Your task to perform on an android device: open the mobile data screen to see how much data has been used Image 0: 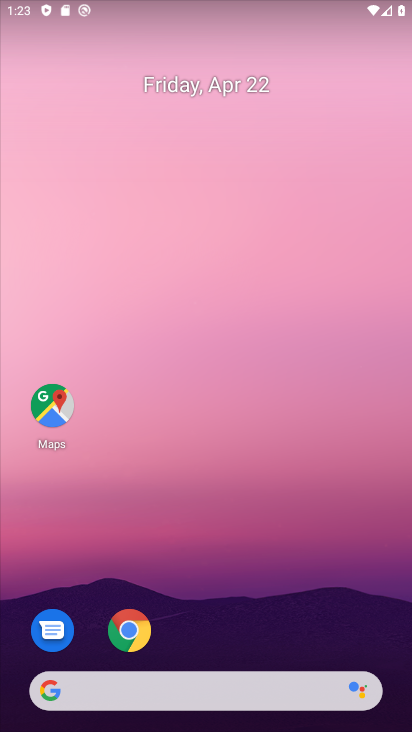
Step 0: drag from (226, 314) to (231, 104)
Your task to perform on an android device: open the mobile data screen to see how much data has been used Image 1: 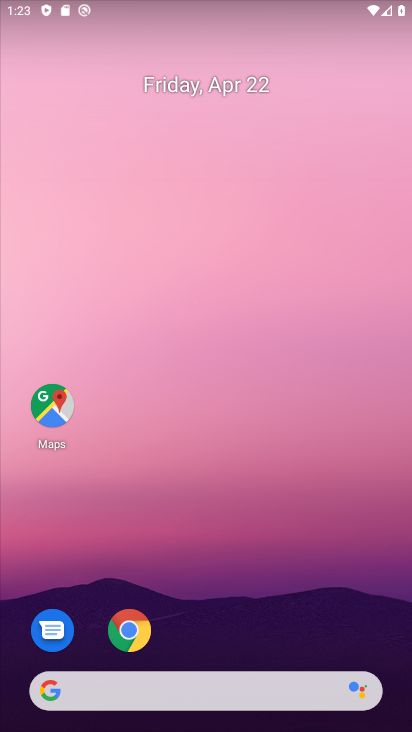
Step 1: drag from (223, 589) to (231, 179)
Your task to perform on an android device: open the mobile data screen to see how much data has been used Image 2: 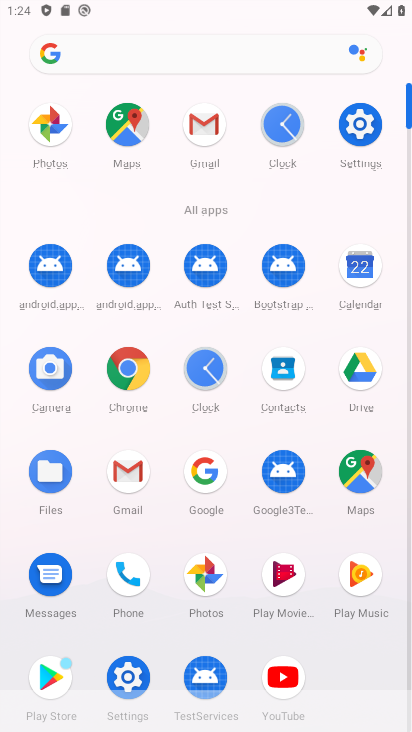
Step 2: click (361, 131)
Your task to perform on an android device: open the mobile data screen to see how much data has been used Image 3: 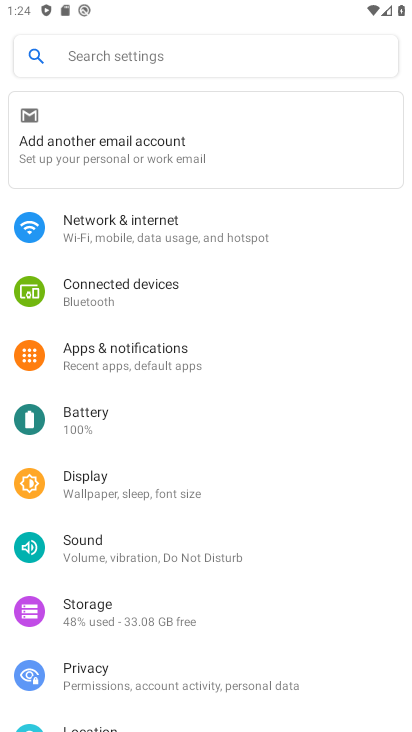
Step 3: click (160, 230)
Your task to perform on an android device: open the mobile data screen to see how much data has been used Image 4: 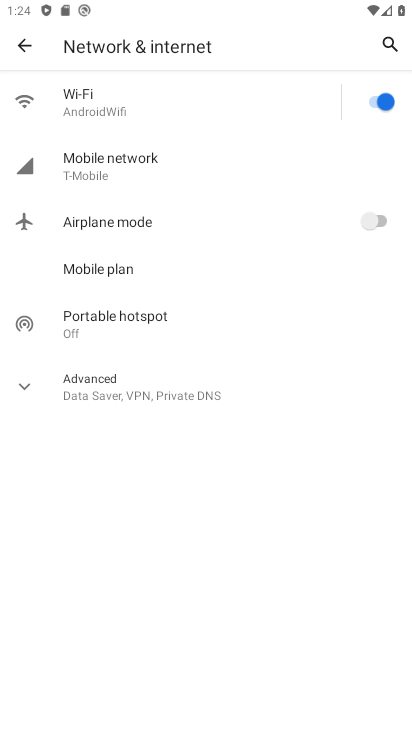
Step 4: click (175, 164)
Your task to perform on an android device: open the mobile data screen to see how much data has been used Image 5: 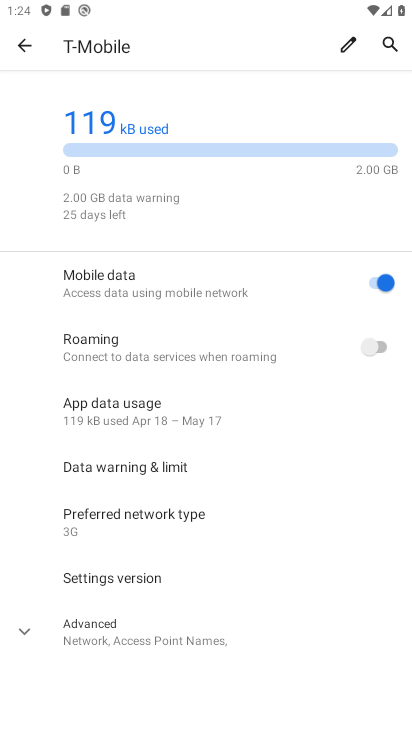
Step 5: task complete